Your task to perform on an android device: change notification settings in the gmail app Image 0: 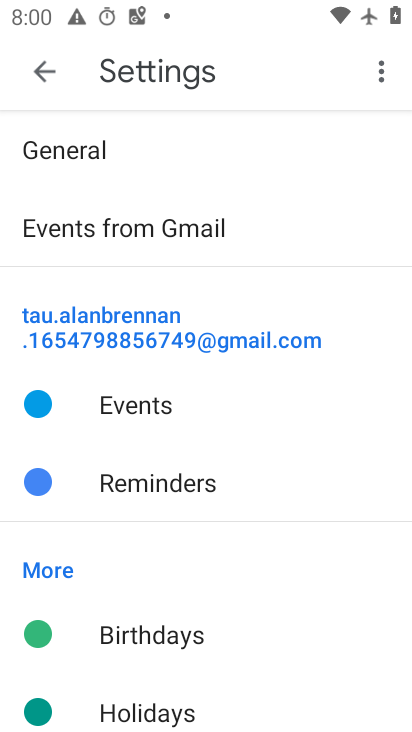
Step 0: press home button
Your task to perform on an android device: change notification settings in the gmail app Image 1: 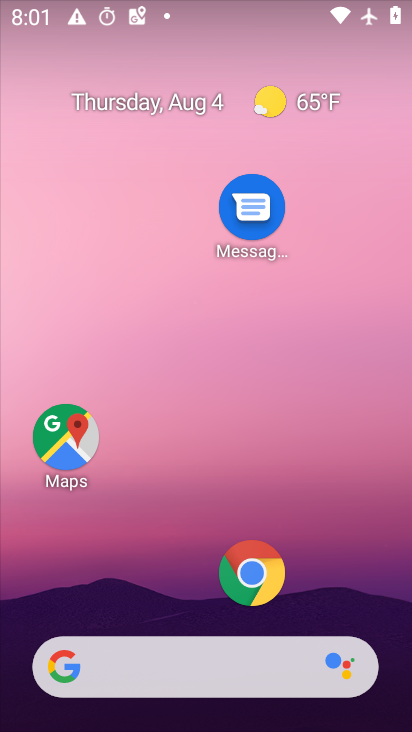
Step 1: drag from (159, 628) to (243, 282)
Your task to perform on an android device: change notification settings in the gmail app Image 2: 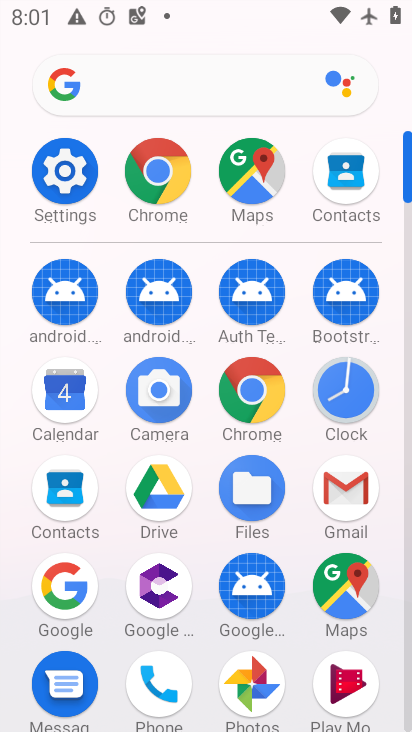
Step 2: click (353, 482)
Your task to perform on an android device: change notification settings in the gmail app Image 3: 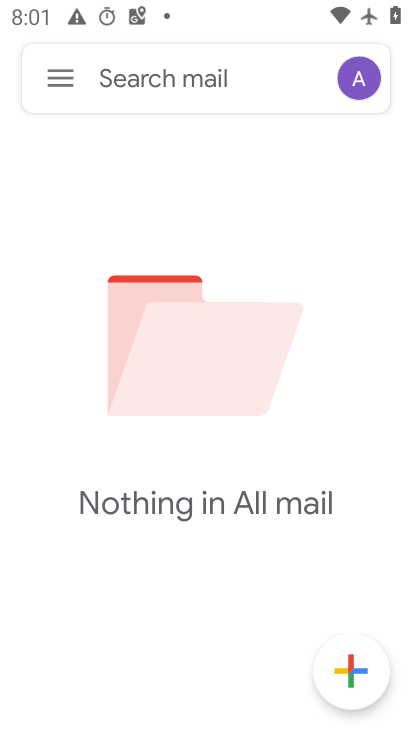
Step 3: click (50, 83)
Your task to perform on an android device: change notification settings in the gmail app Image 4: 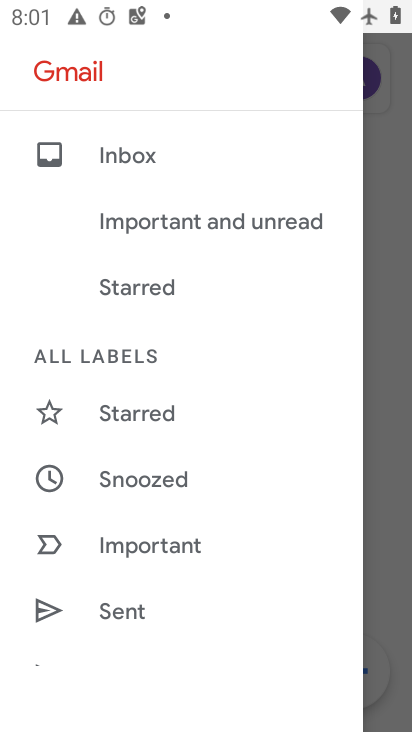
Step 4: drag from (265, 471) to (262, 174)
Your task to perform on an android device: change notification settings in the gmail app Image 5: 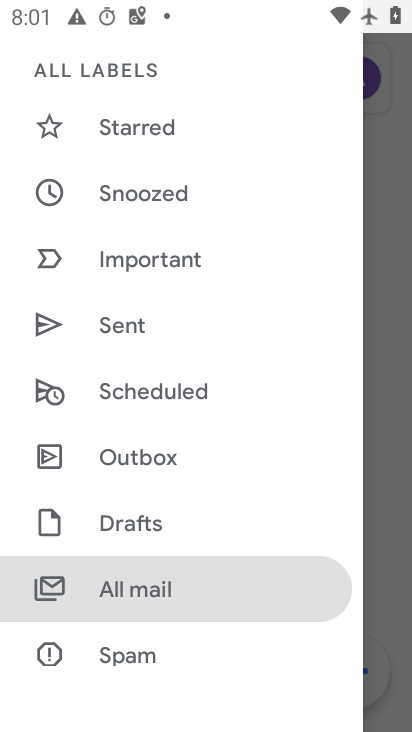
Step 5: drag from (242, 630) to (251, 408)
Your task to perform on an android device: change notification settings in the gmail app Image 6: 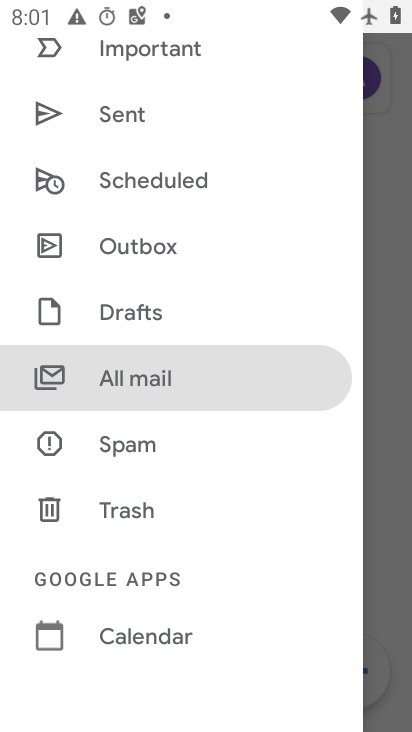
Step 6: drag from (241, 610) to (245, 380)
Your task to perform on an android device: change notification settings in the gmail app Image 7: 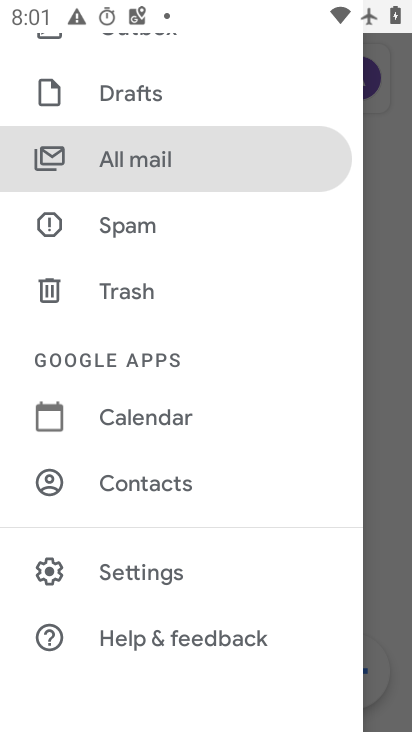
Step 7: click (158, 571)
Your task to perform on an android device: change notification settings in the gmail app Image 8: 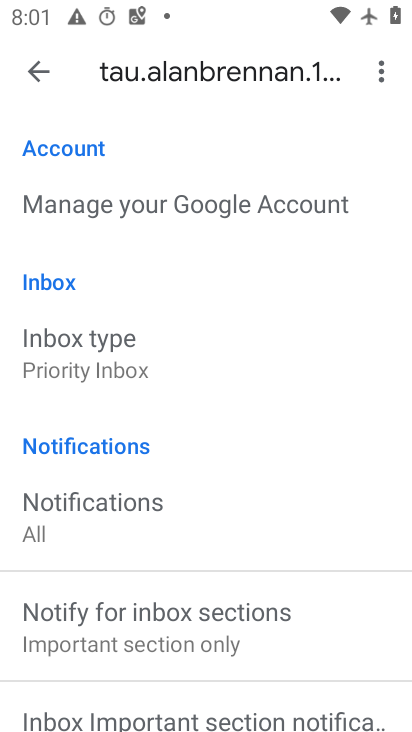
Step 8: drag from (304, 644) to (316, 290)
Your task to perform on an android device: change notification settings in the gmail app Image 9: 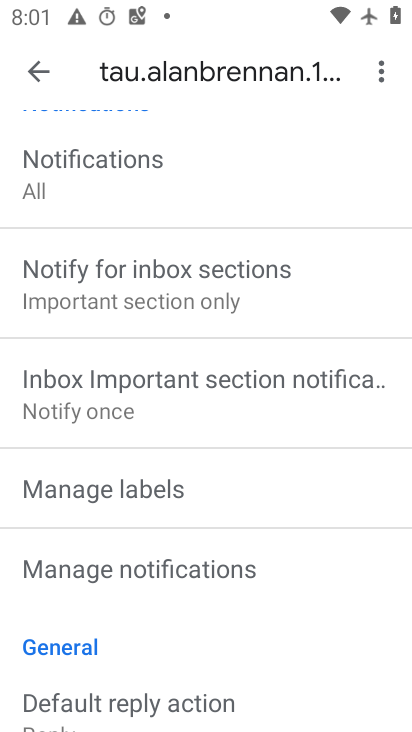
Step 9: click (183, 575)
Your task to perform on an android device: change notification settings in the gmail app Image 10: 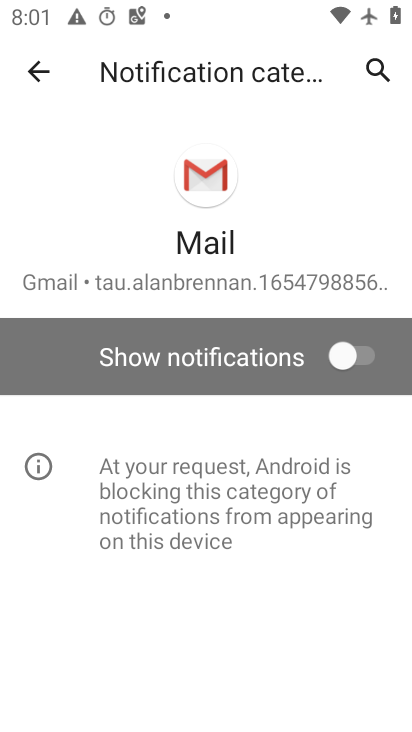
Step 10: click (342, 355)
Your task to perform on an android device: change notification settings in the gmail app Image 11: 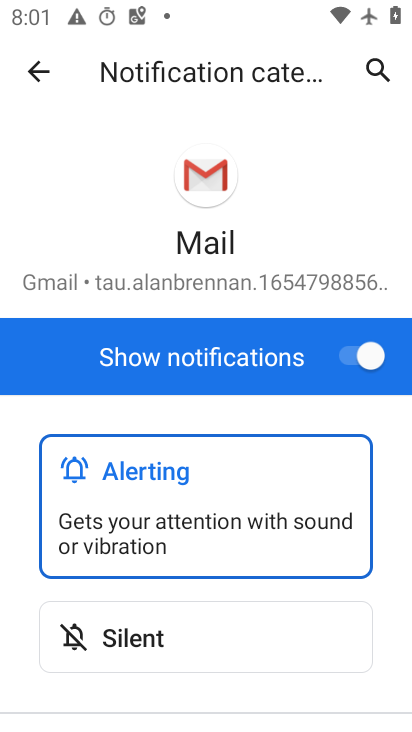
Step 11: task complete